Your task to perform on an android device: find which apps use the phone's location Image 0: 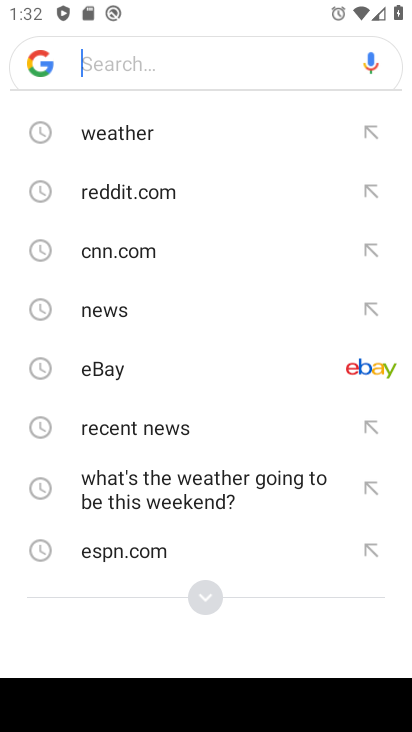
Step 0: press home button
Your task to perform on an android device: find which apps use the phone's location Image 1: 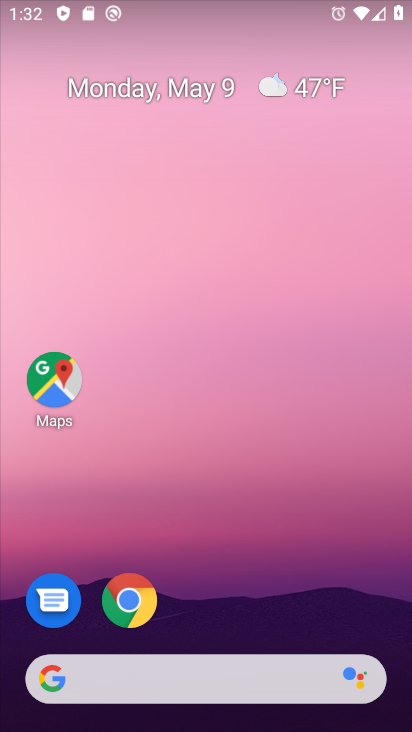
Step 1: drag from (190, 646) to (210, 243)
Your task to perform on an android device: find which apps use the phone's location Image 2: 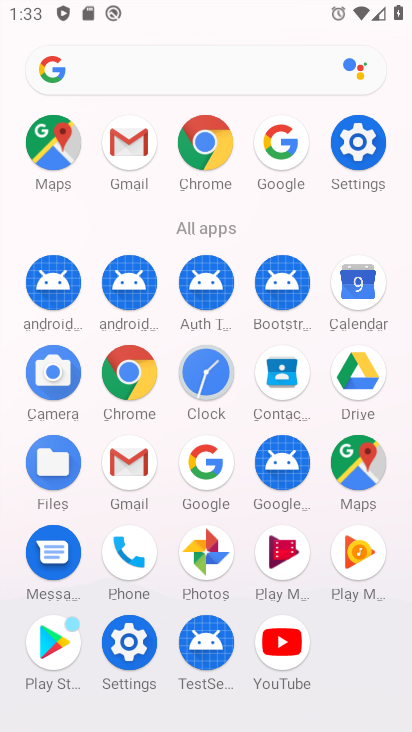
Step 2: click (359, 175)
Your task to perform on an android device: find which apps use the phone's location Image 3: 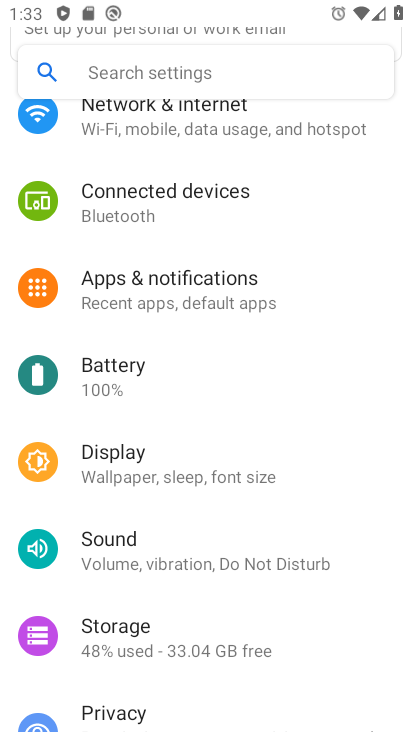
Step 3: drag from (134, 457) to (162, 107)
Your task to perform on an android device: find which apps use the phone's location Image 4: 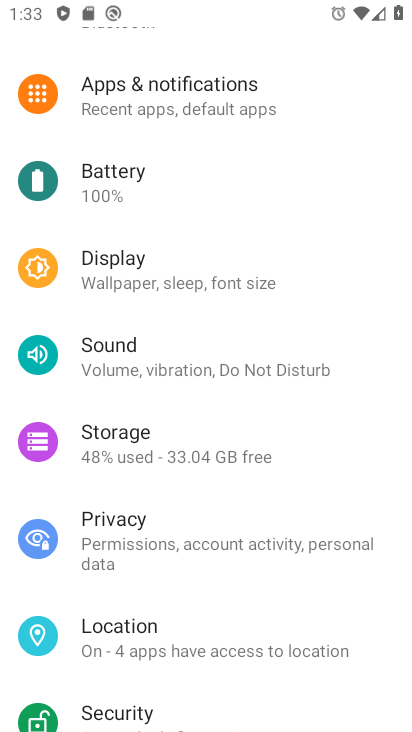
Step 4: click (107, 628)
Your task to perform on an android device: find which apps use the phone's location Image 5: 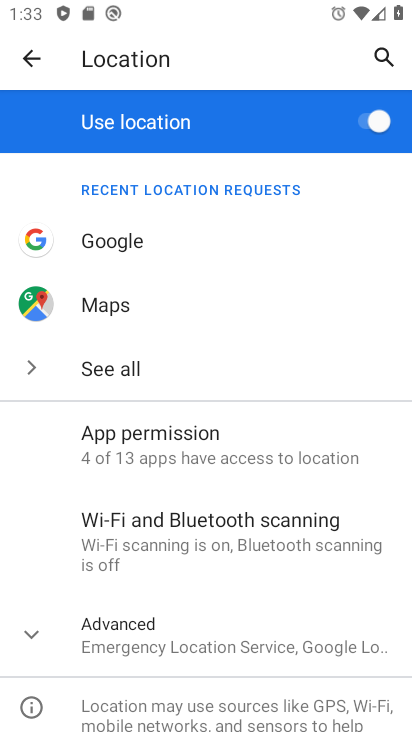
Step 5: click (212, 459)
Your task to perform on an android device: find which apps use the phone's location Image 6: 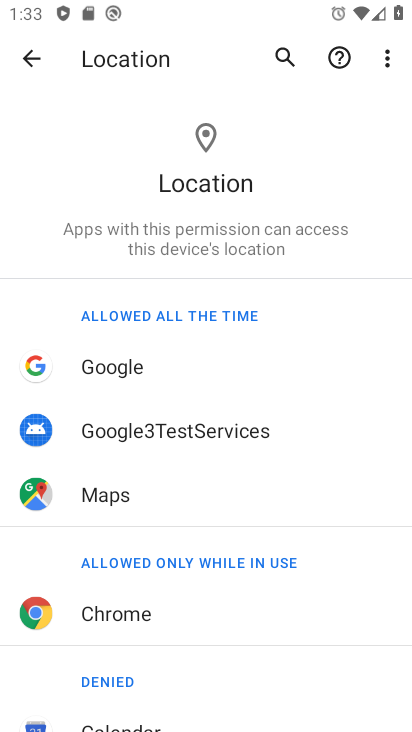
Step 6: task complete